Your task to perform on an android device: Search for Italian restaurants on Maps Image 0: 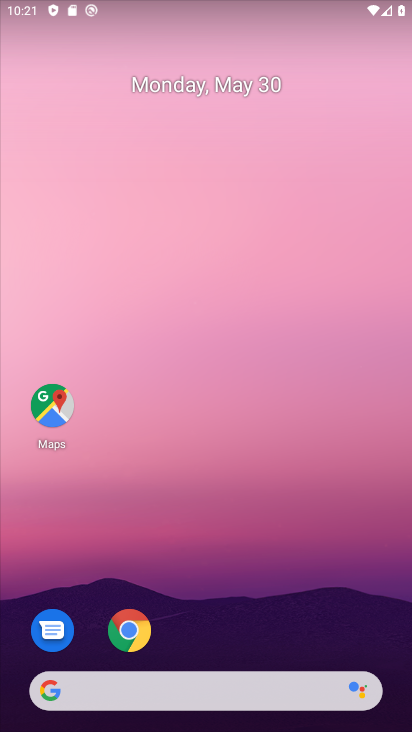
Step 0: click (43, 419)
Your task to perform on an android device: Search for Italian restaurants on Maps Image 1: 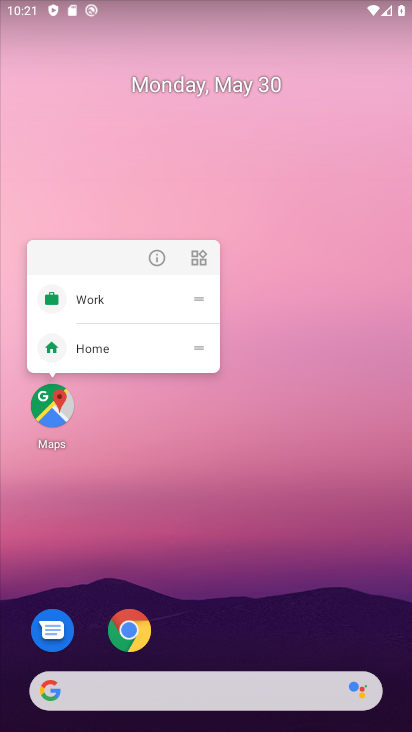
Step 1: click (50, 418)
Your task to perform on an android device: Search for Italian restaurants on Maps Image 2: 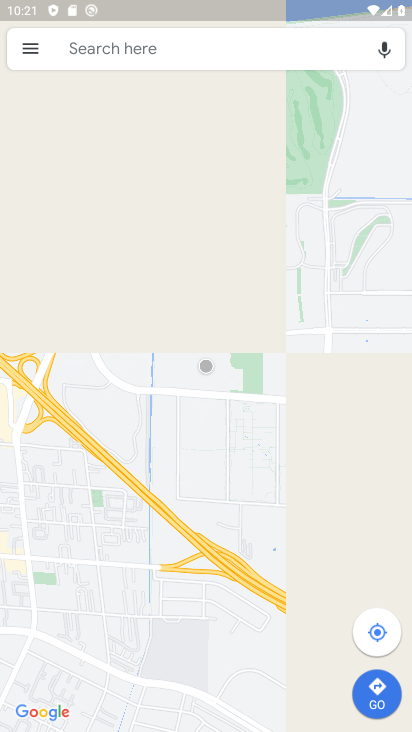
Step 2: click (215, 46)
Your task to perform on an android device: Search for Italian restaurants on Maps Image 3: 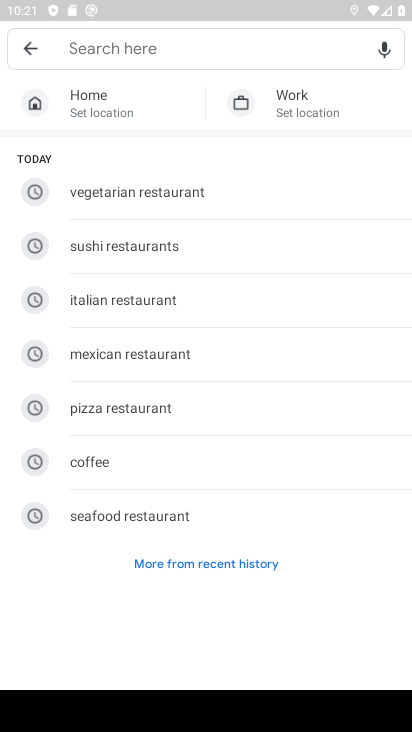
Step 3: type "Italian restaurants"
Your task to perform on an android device: Search for Italian restaurants on Maps Image 4: 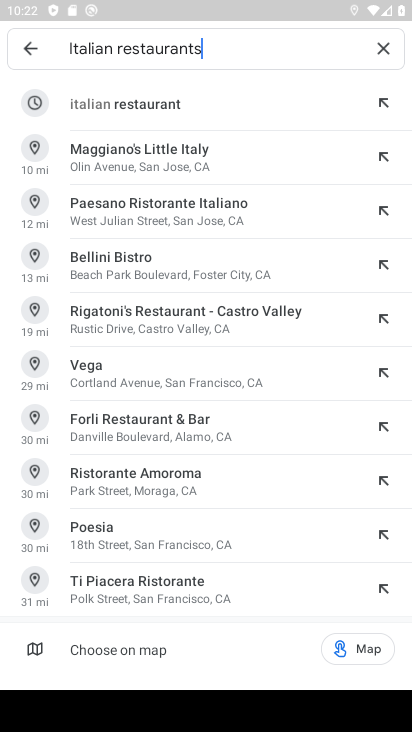
Step 4: click (238, 114)
Your task to perform on an android device: Search for Italian restaurants on Maps Image 5: 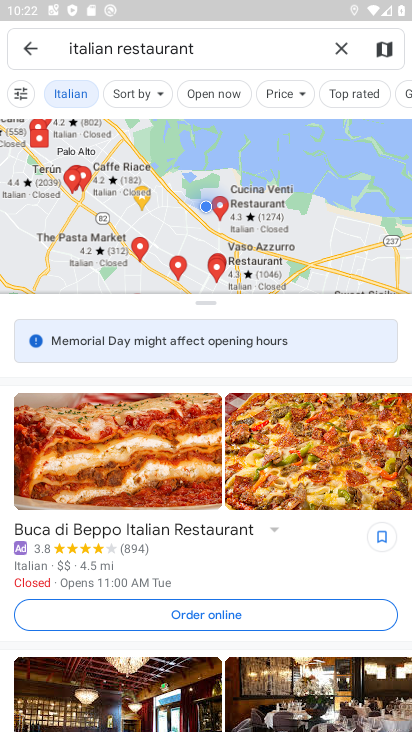
Step 5: task complete